Your task to perform on an android device: Go to Google Image 0: 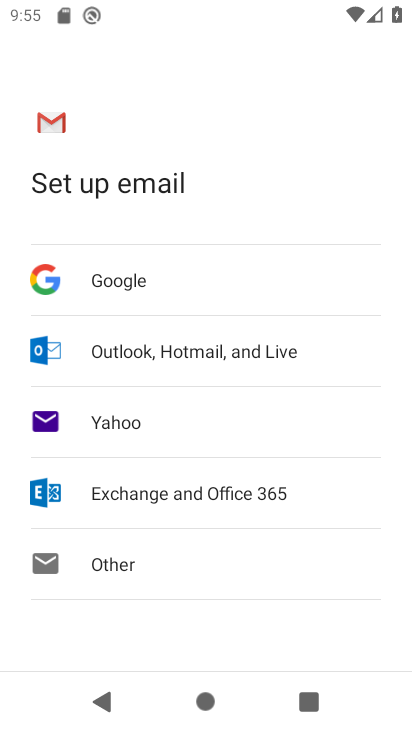
Step 0: press home button
Your task to perform on an android device: Go to Google Image 1: 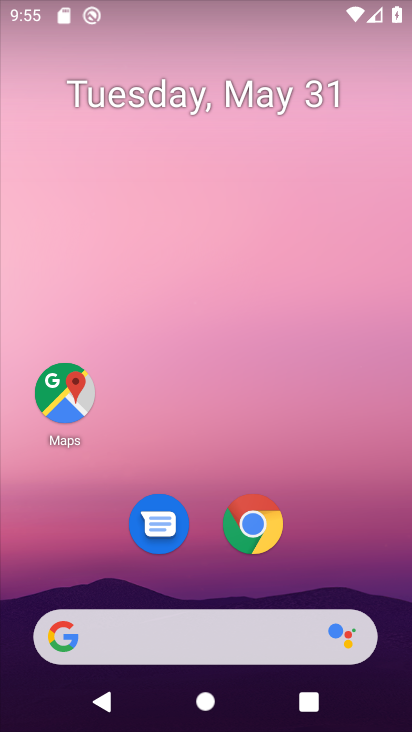
Step 1: click (106, 631)
Your task to perform on an android device: Go to Google Image 2: 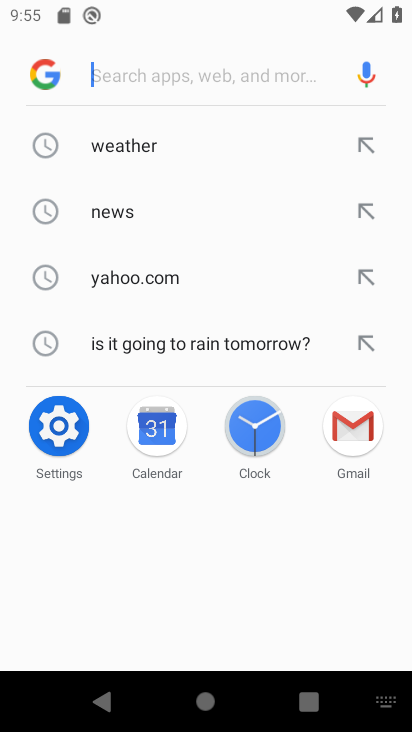
Step 2: click (43, 68)
Your task to perform on an android device: Go to Google Image 3: 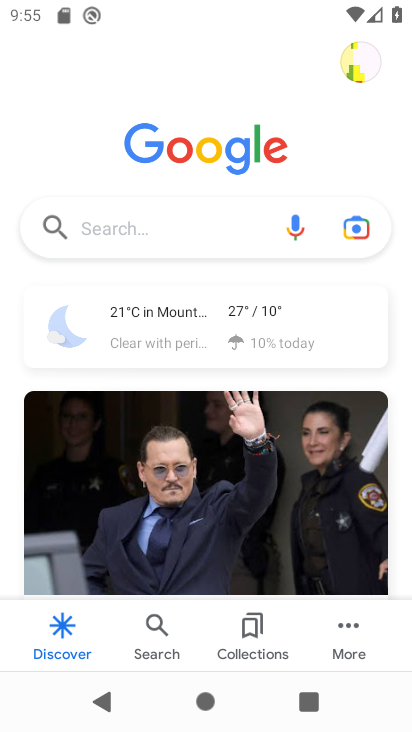
Step 3: task complete